Your task to perform on an android device: star an email in the gmail app Image 0: 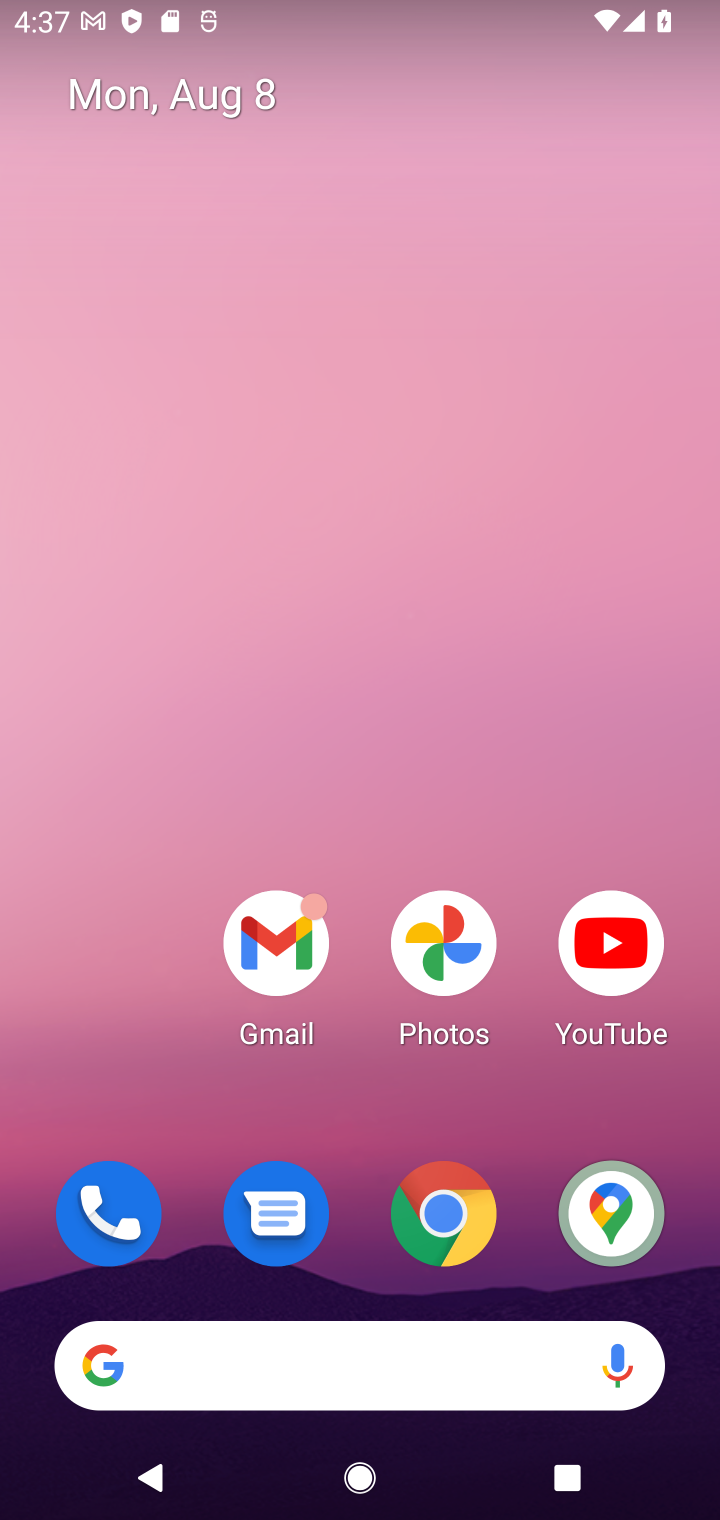
Step 0: click (274, 914)
Your task to perform on an android device: star an email in the gmail app Image 1: 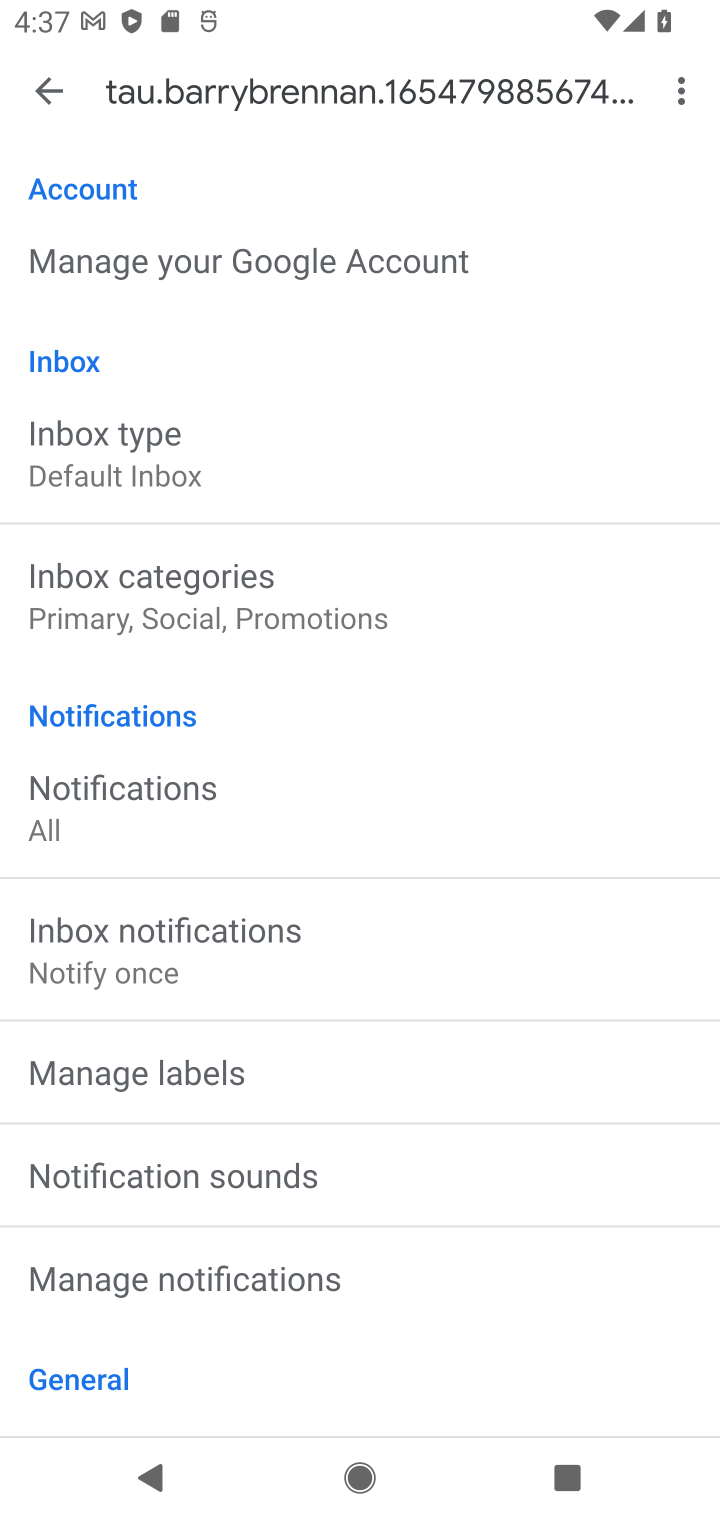
Step 1: click (57, 89)
Your task to perform on an android device: star an email in the gmail app Image 2: 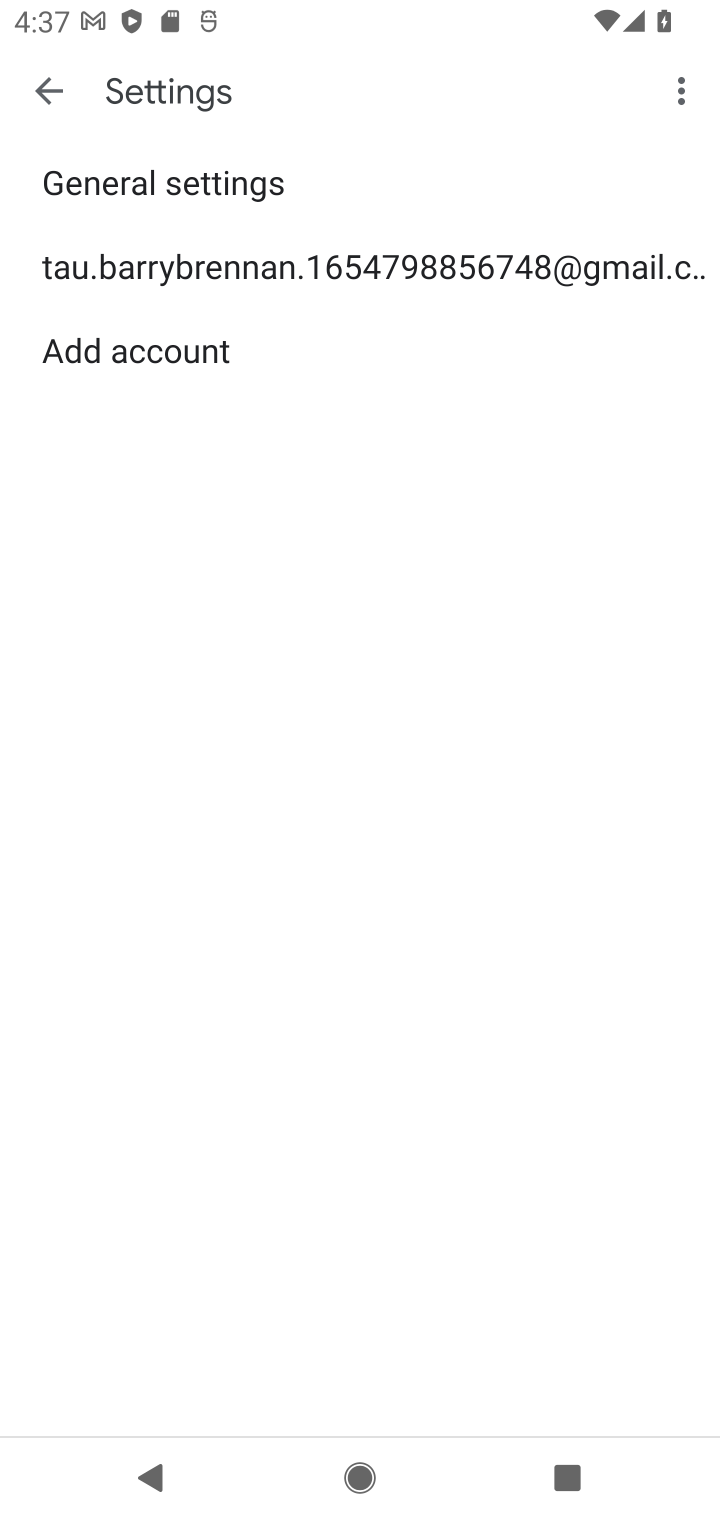
Step 2: click (57, 89)
Your task to perform on an android device: star an email in the gmail app Image 3: 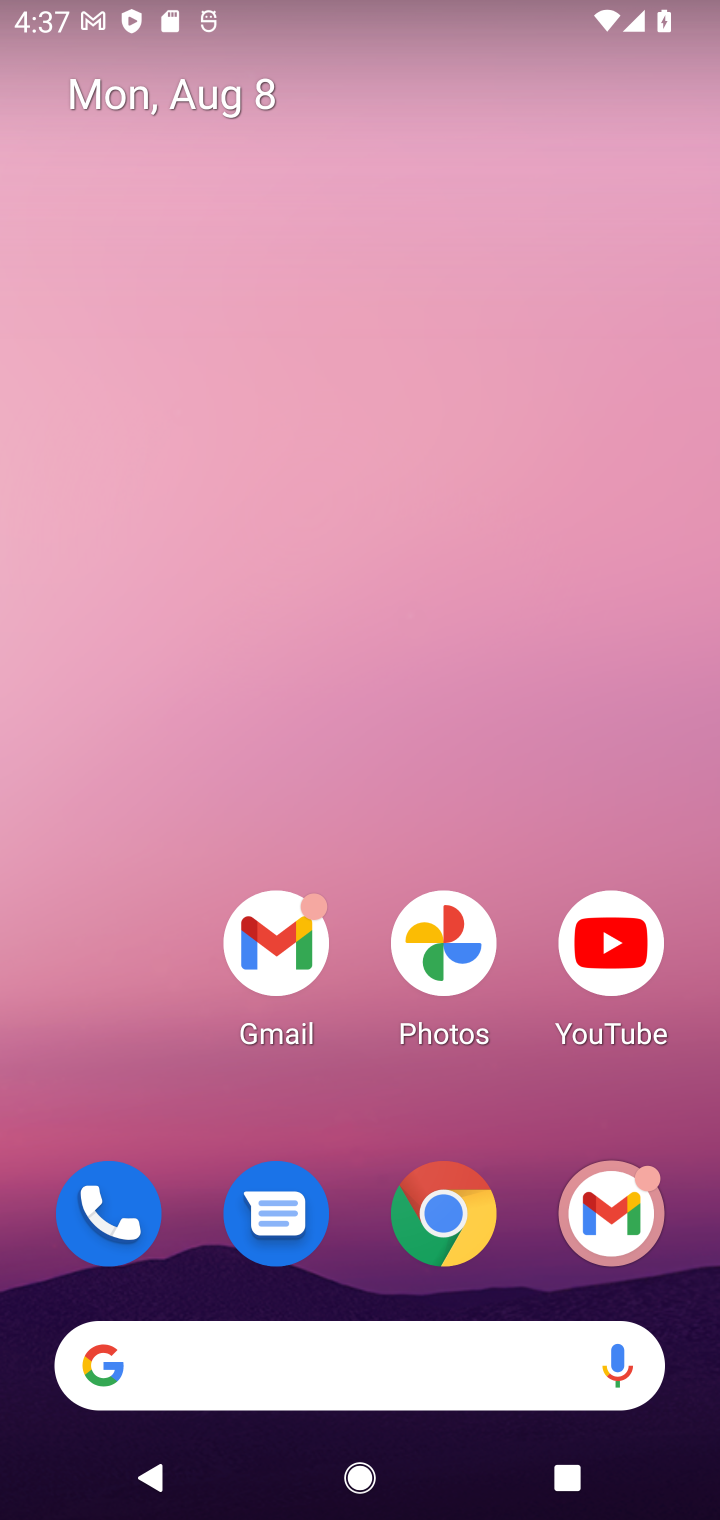
Step 3: click (249, 952)
Your task to perform on an android device: star an email in the gmail app Image 4: 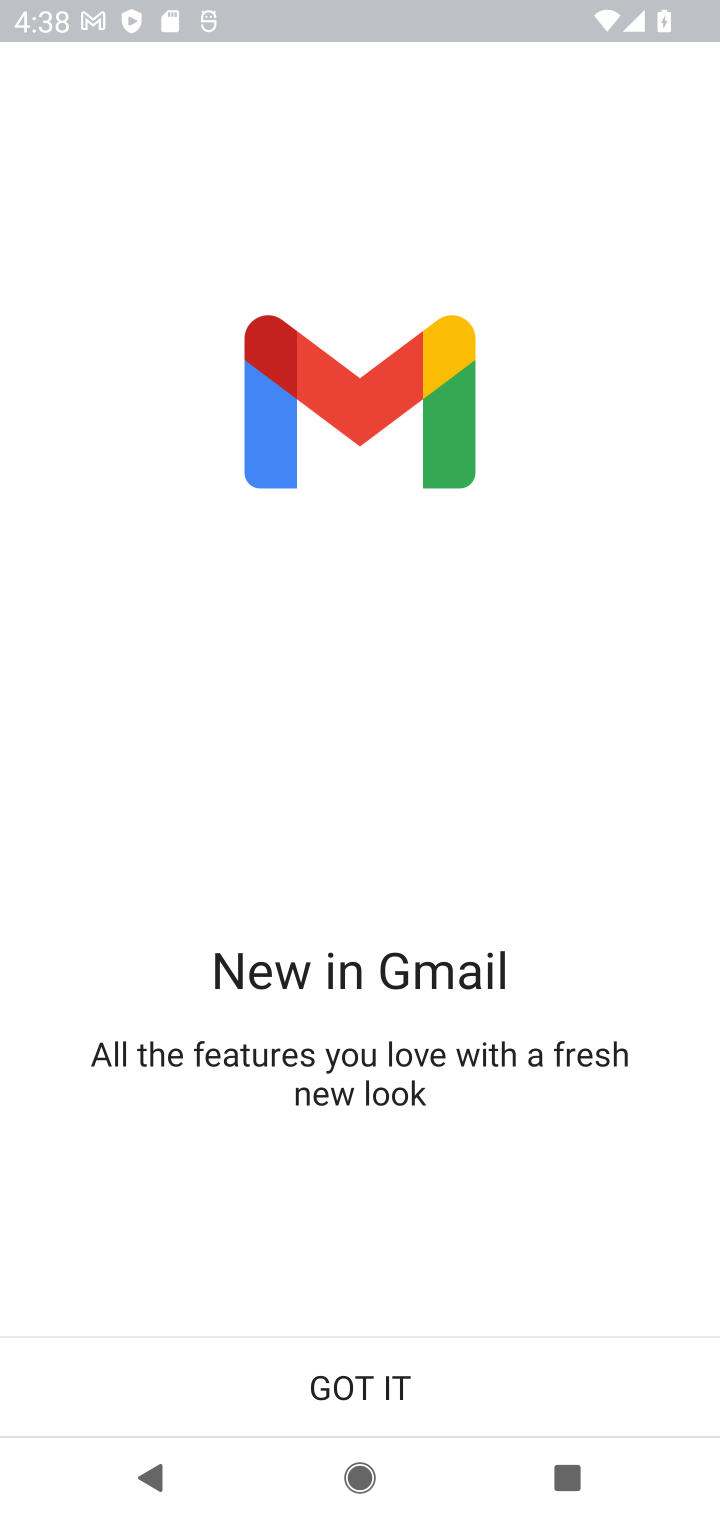
Step 4: click (384, 1379)
Your task to perform on an android device: star an email in the gmail app Image 5: 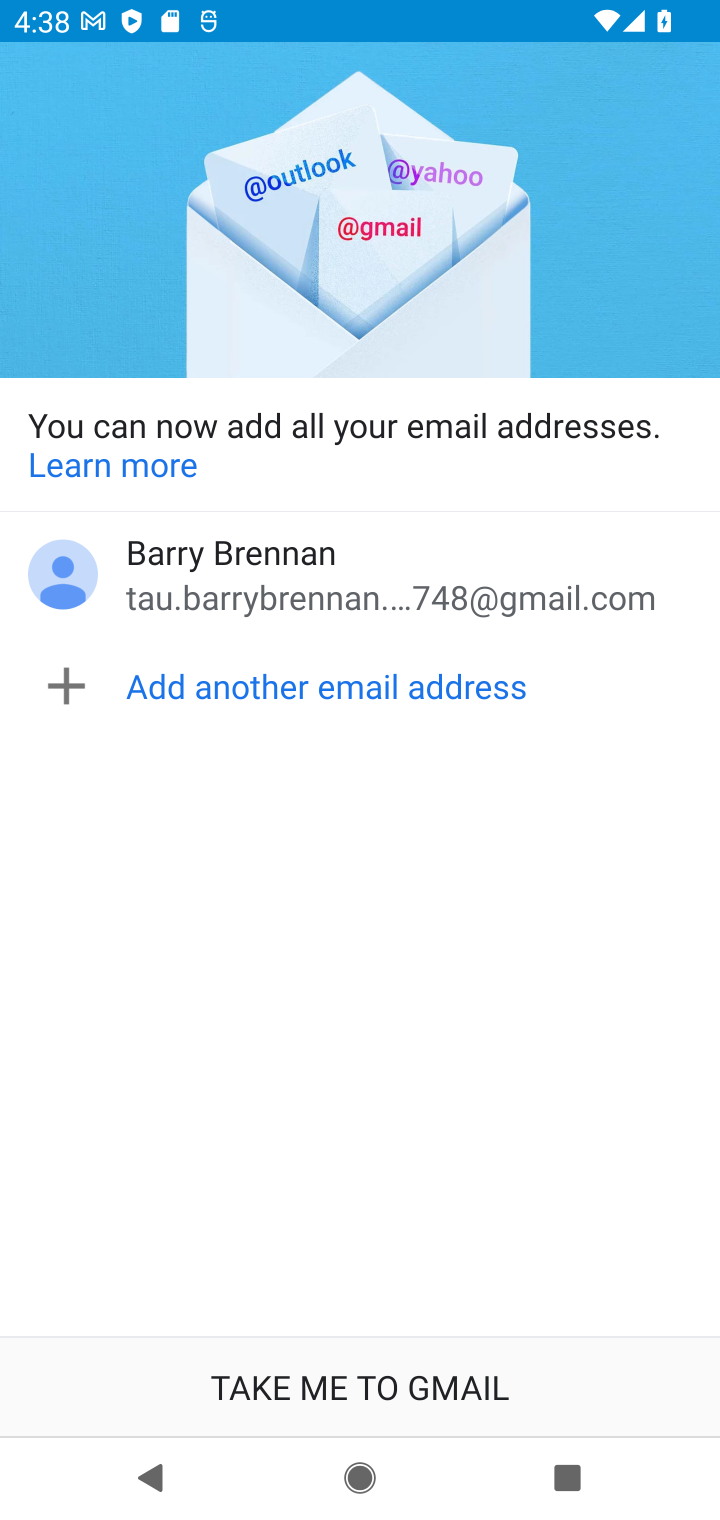
Step 5: click (384, 1379)
Your task to perform on an android device: star an email in the gmail app Image 6: 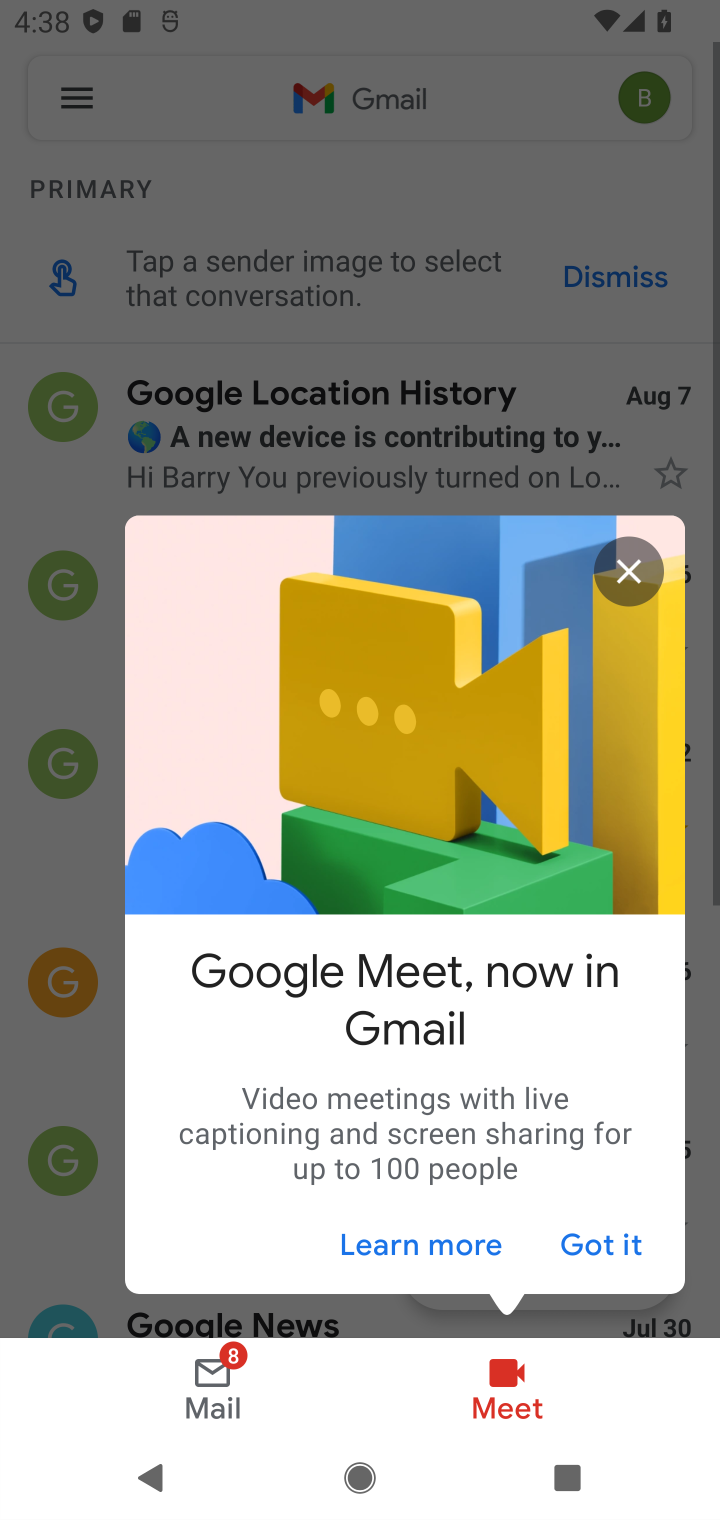
Step 6: click (597, 1253)
Your task to perform on an android device: star an email in the gmail app Image 7: 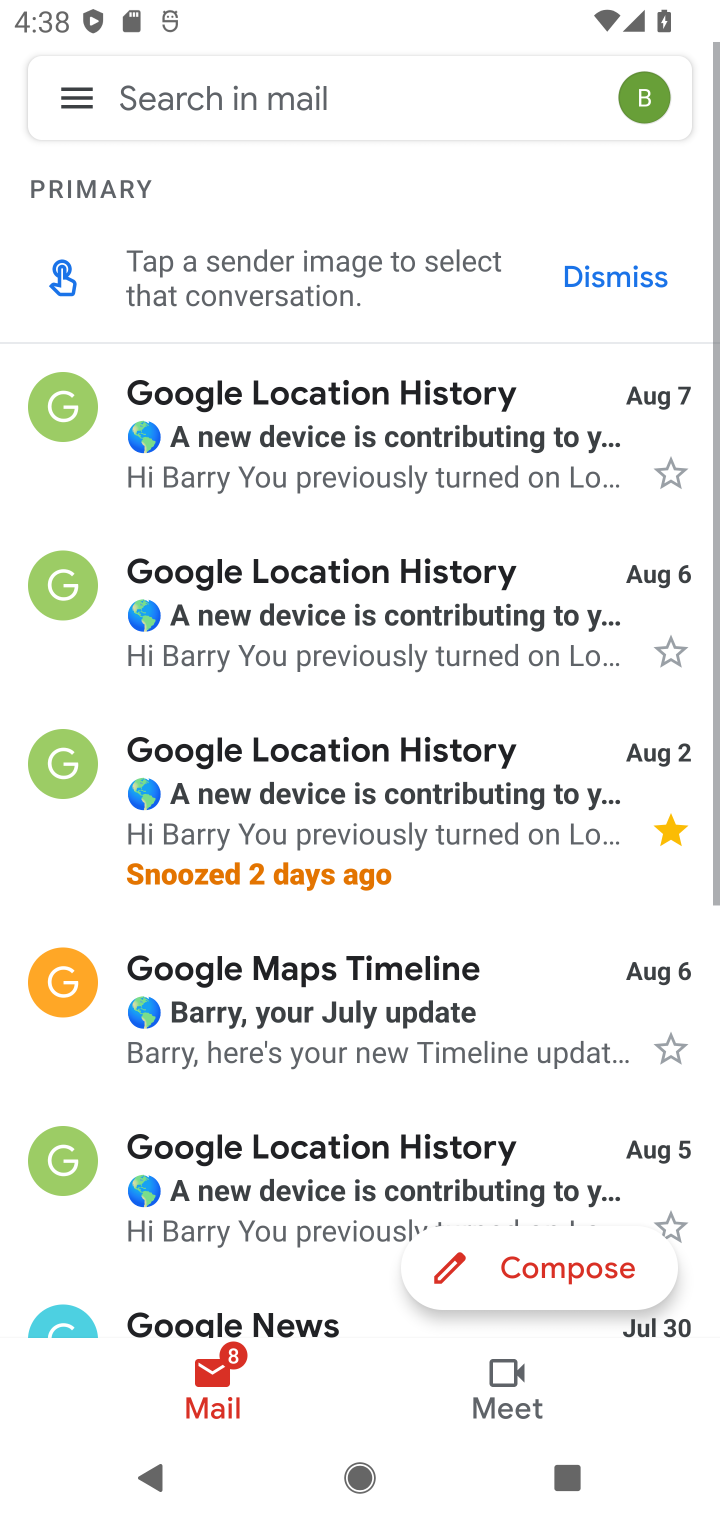
Step 7: click (663, 479)
Your task to perform on an android device: star an email in the gmail app Image 8: 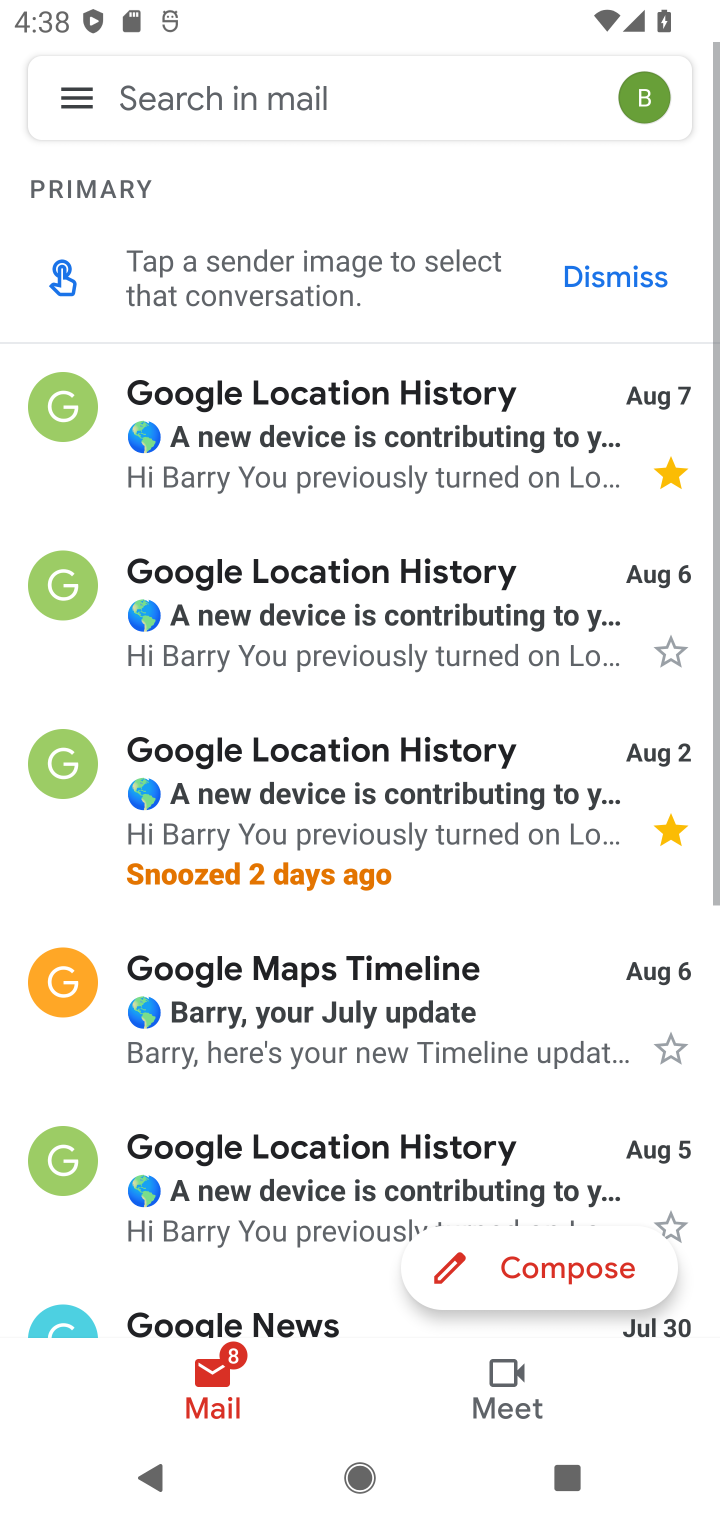
Step 8: task complete